Your task to perform on an android device: Open the web browser Image 0: 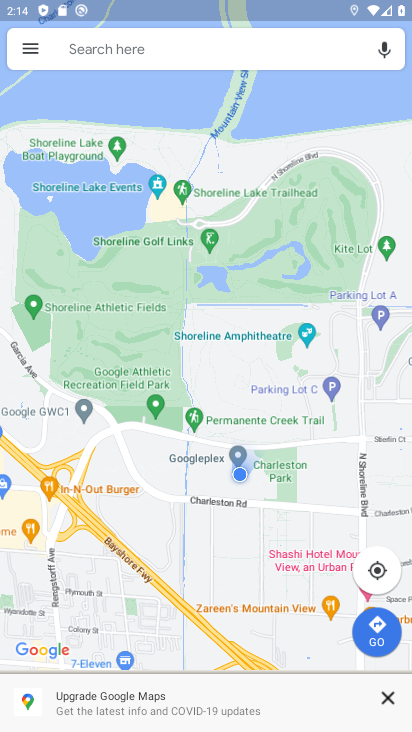
Step 0: press home button
Your task to perform on an android device: Open the web browser Image 1: 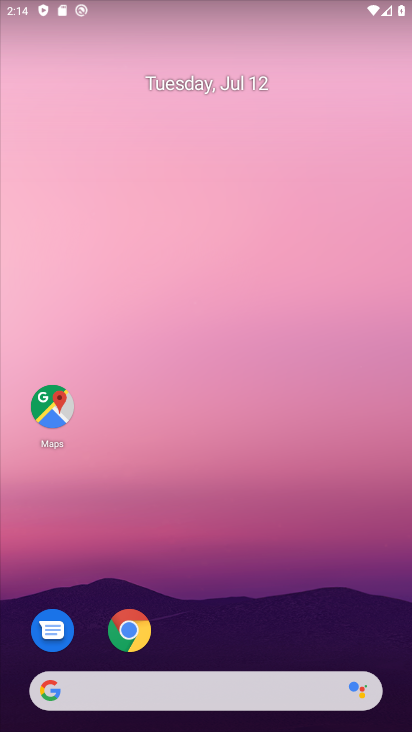
Step 1: click (128, 633)
Your task to perform on an android device: Open the web browser Image 2: 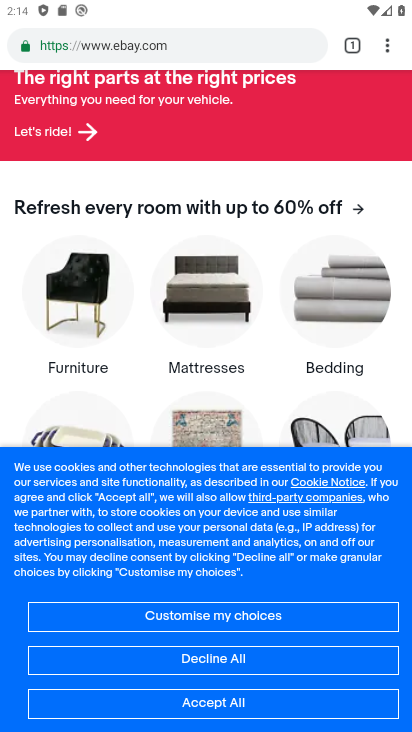
Step 2: task complete